Your task to perform on an android device: Go to accessibility settings Image 0: 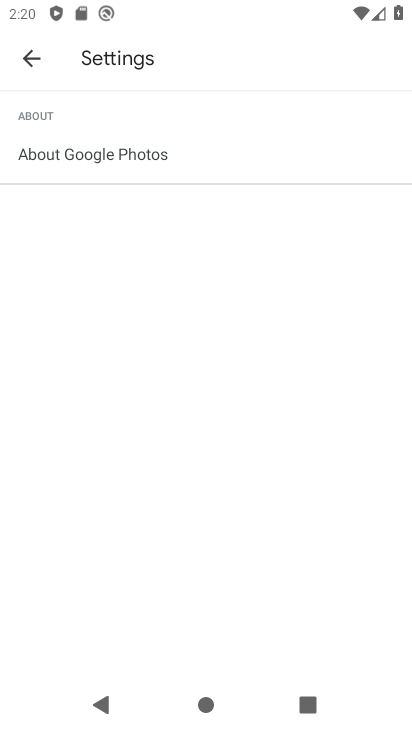
Step 0: press home button
Your task to perform on an android device: Go to accessibility settings Image 1: 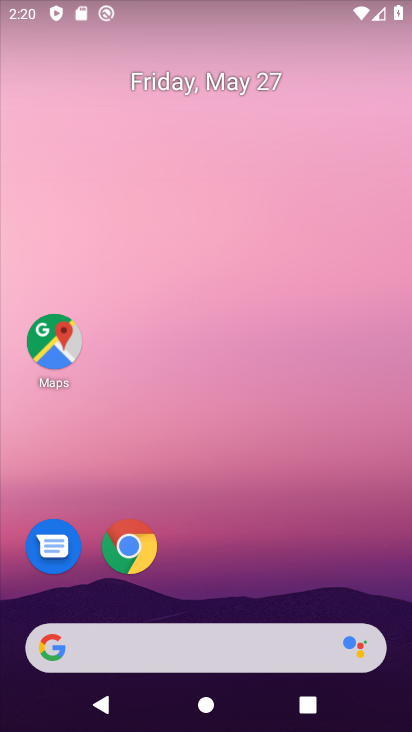
Step 1: drag from (190, 557) to (243, 55)
Your task to perform on an android device: Go to accessibility settings Image 2: 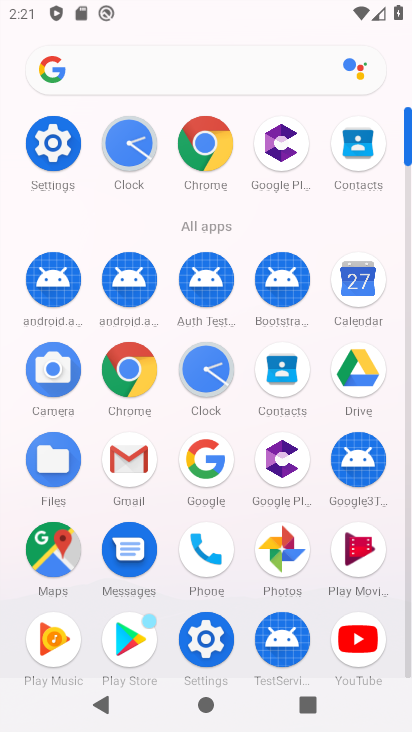
Step 2: click (214, 641)
Your task to perform on an android device: Go to accessibility settings Image 3: 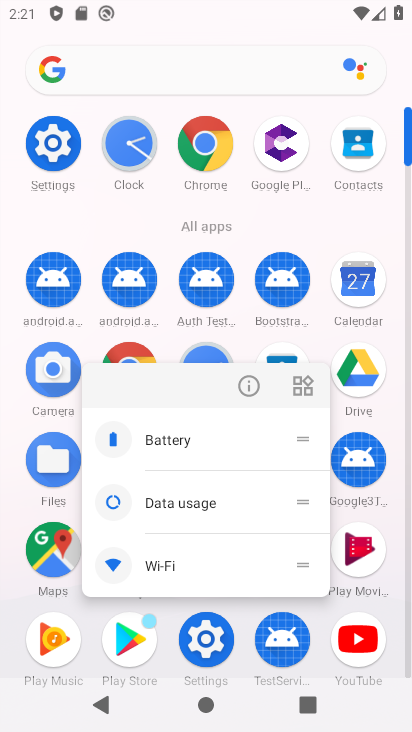
Step 3: click (209, 635)
Your task to perform on an android device: Go to accessibility settings Image 4: 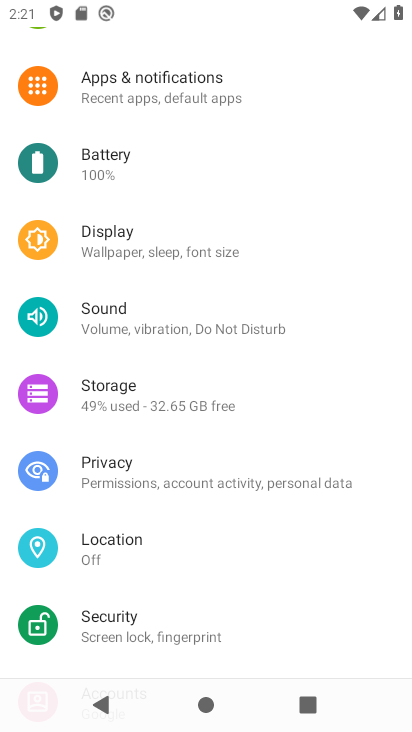
Step 4: drag from (129, 423) to (142, 210)
Your task to perform on an android device: Go to accessibility settings Image 5: 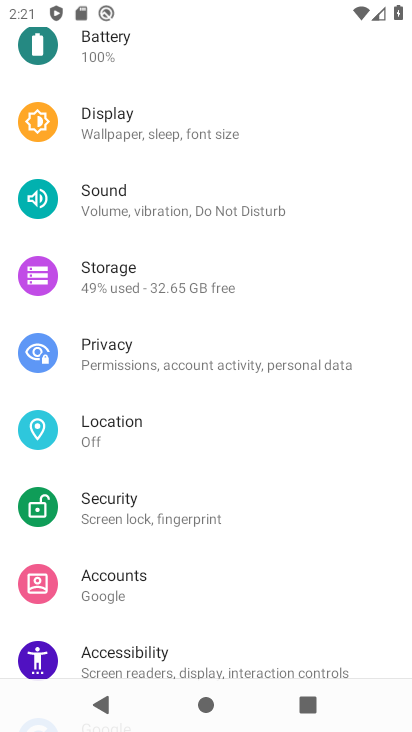
Step 5: click (91, 666)
Your task to perform on an android device: Go to accessibility settings Image 6: 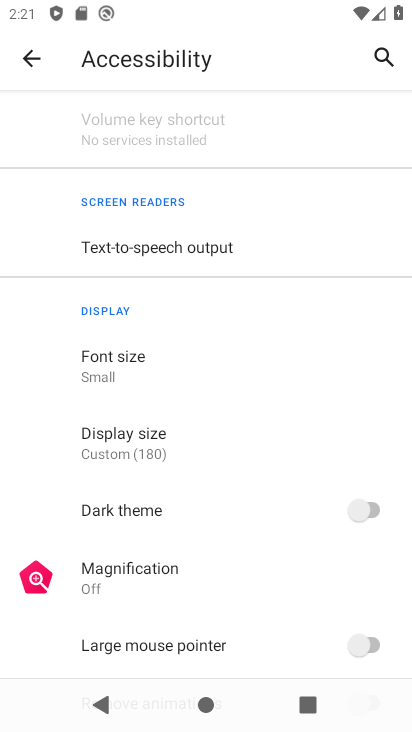
Step 6: task complete